Your task to perform on an android device: read, delete, or share a saved page in the chrome app Image 0: 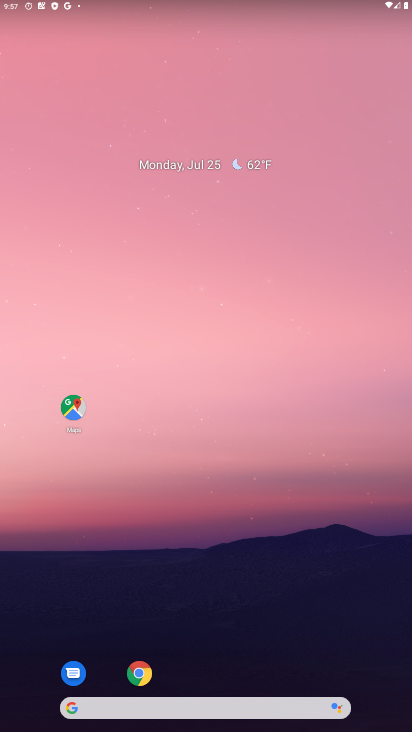
Step 0: drag from (184, 573) to (266, 63)
Your task to perform on an android device: read, delete, or share a saved page in the chrome app Image 1: 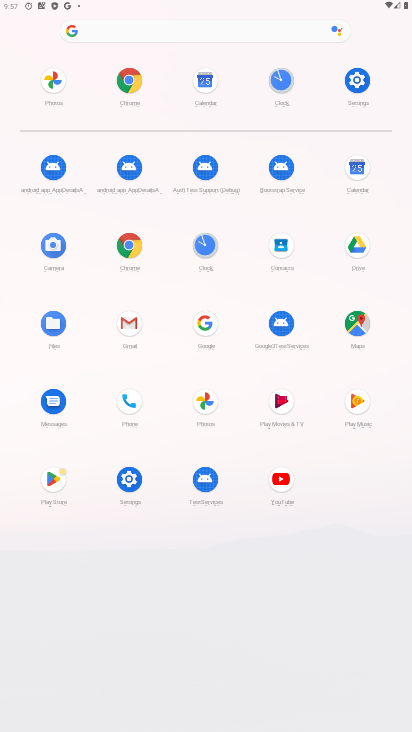
Step 1: click (128, 241)
Your task to perform on an android device: read, delete, or share a saved page in the chrome app Image 2: 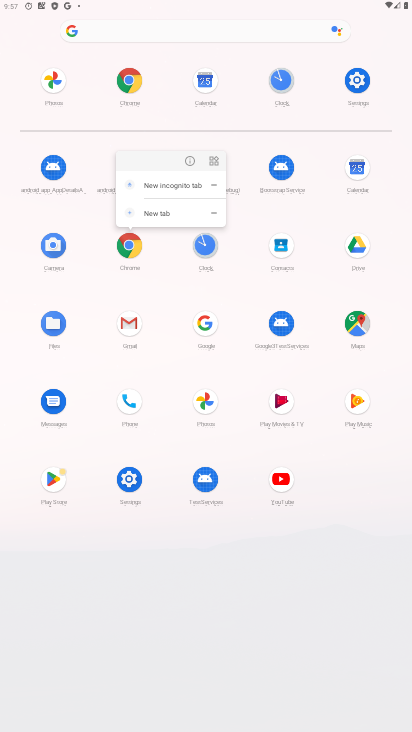
Step 2: click (186, 158)
Your task to perform on an android device: read, delete, or share a saved page in the chrome app Image 3: 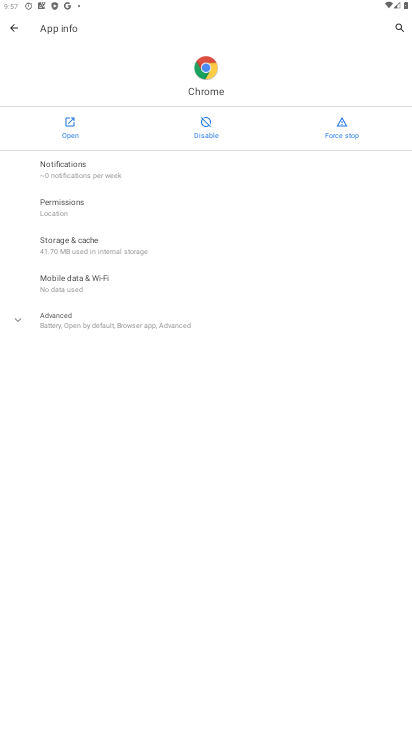
Step 3: click (72, 132)
Your task to perform on an android device: read, delete, or share a saved page in the chrome app Image 4: 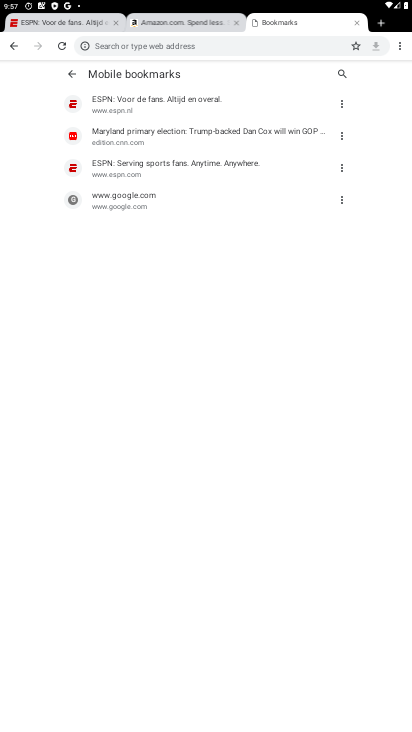
Step 4: drag from (239, 642) to (286, 309)
Your task to perform on an android device: read, delete, or share a saved page in the chrome app Image 5: 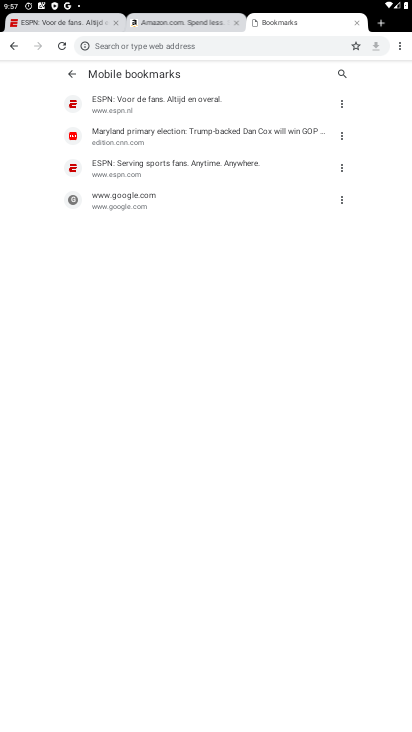
Step 5: click (102, 166)
Your task to perform on an android device: read, delete, or share a saved page in the chrome app Image 6: 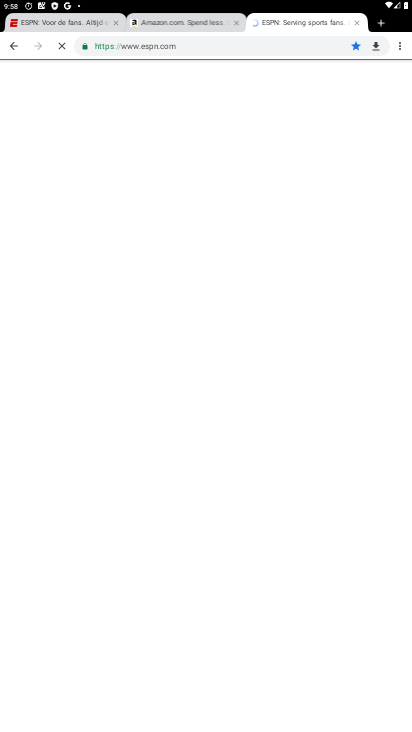
Step 6: task complete